Your task to perform on an android device: Go to Maps Image 0: 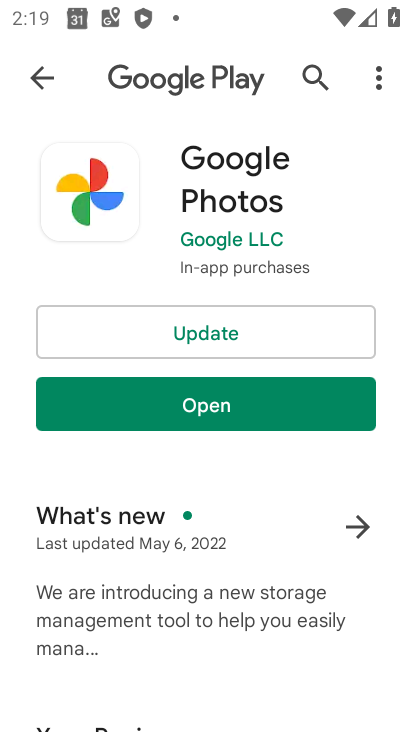
Step 0: press home button
Your task to perform on an android device: Go to Maps Image 1: 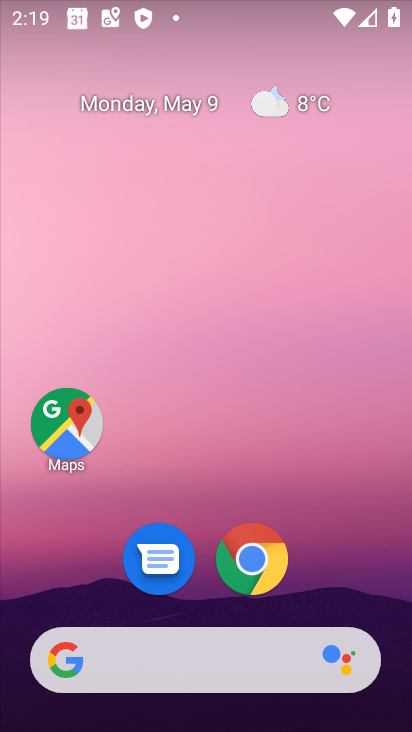
Step 1: click (63, 420)
Your task to perform on an android device: Go to Maps Image 2: 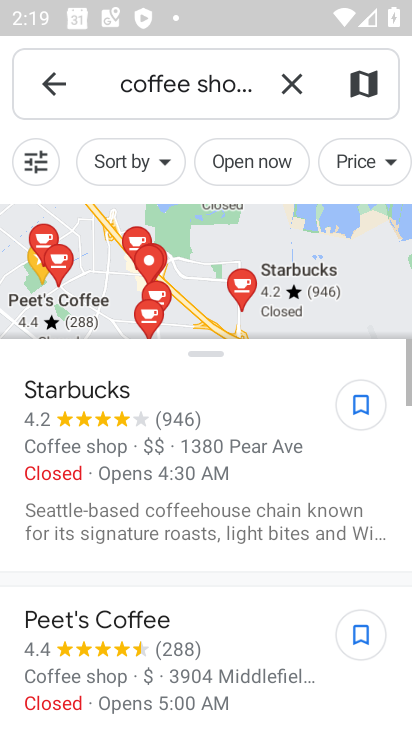
Step 2: task complete